Your task to perform on an android device: remove spam from my inbox in the gmail app Image 0: 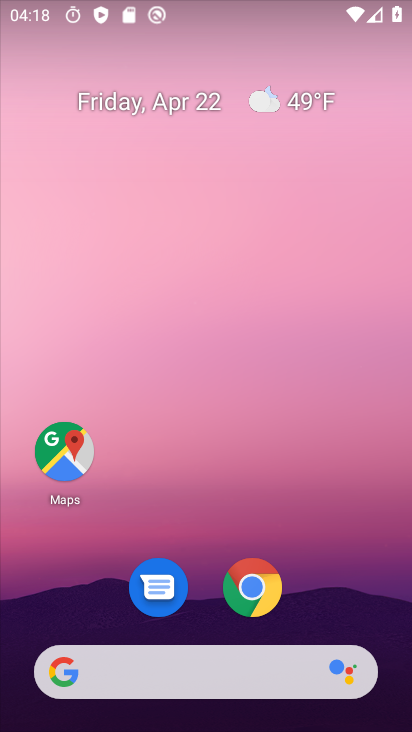
Step 0: drag from (368, 637) to (391, 5)
Your task to perform on an android device: remove spam from my inbox in the gmail app Image 1: 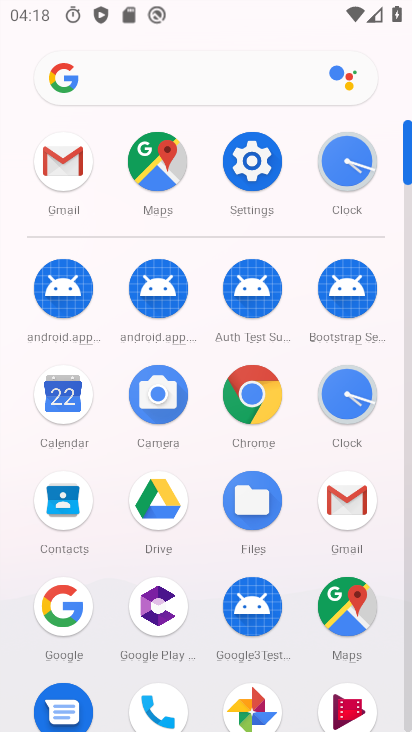
Step 1: click (54, 174)
Your task to perform on an android device: remove spam from my inbox in the gmail app Image 2: 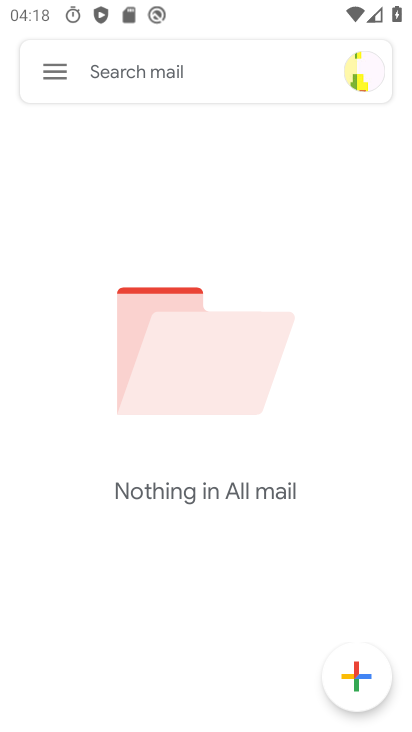
Step 2: click (56, 70)
Your task to perform on an android device: remove spam from my inbox in the gmail app Image 3: 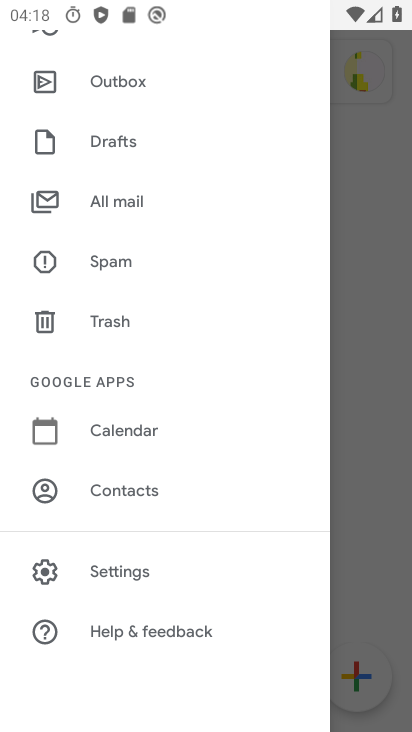
Step 3: click (102, 261)
Your task to perform on an android device: remove spam from my inbox in the gmail app Image 4: 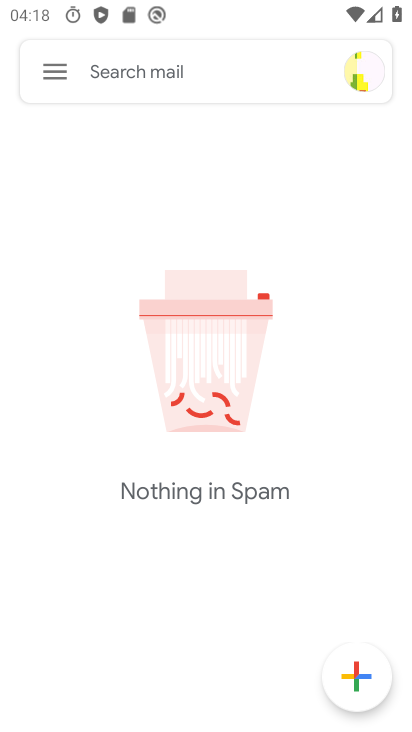
Step 4: task complete